Your task to perform on an android device: turn smart compose on in the gmail app Image 0: 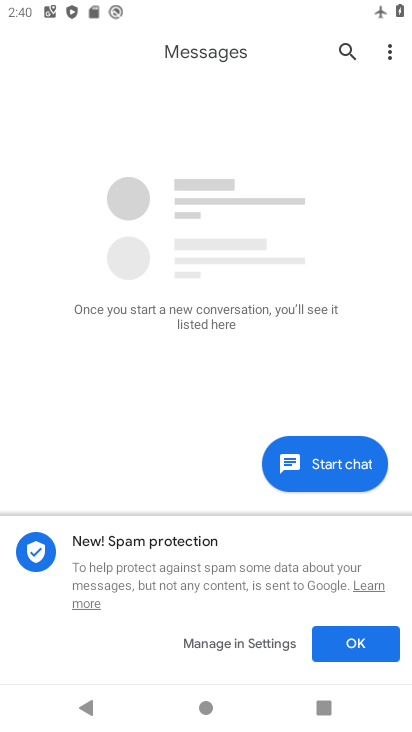
Step 0: press home button
Your task to perform on an android device: turn smart compose on in the gmail app Image 1: 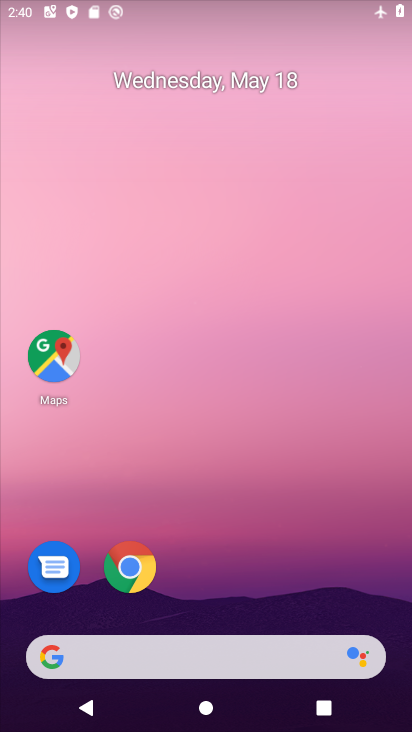
Step 1: drag from (251, 567) to (217, 202)
Your task to perform on an android device: turn smart compose on in the gmail app Image 2: 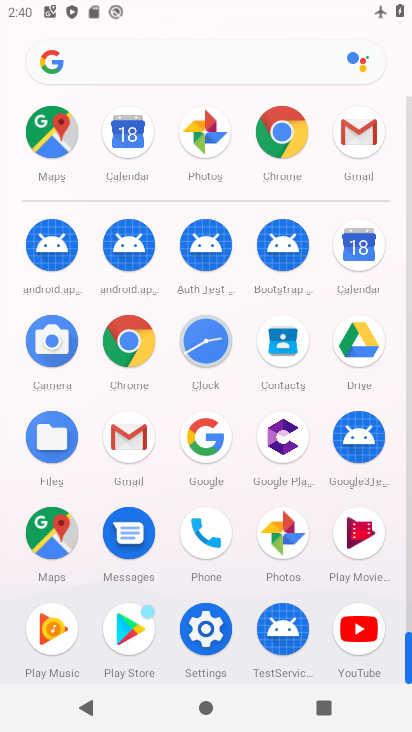
Step 2: click (350, 148)
Your task to perform on an android device: turn smart compose on in the gmail app Image 3: 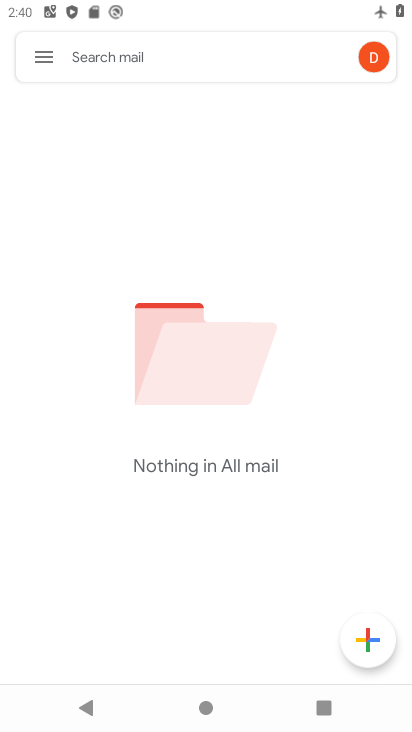
Step 3: click (35, 66)
Your task to perform on an android device: turn smart compose on in the gmail app Image 4: 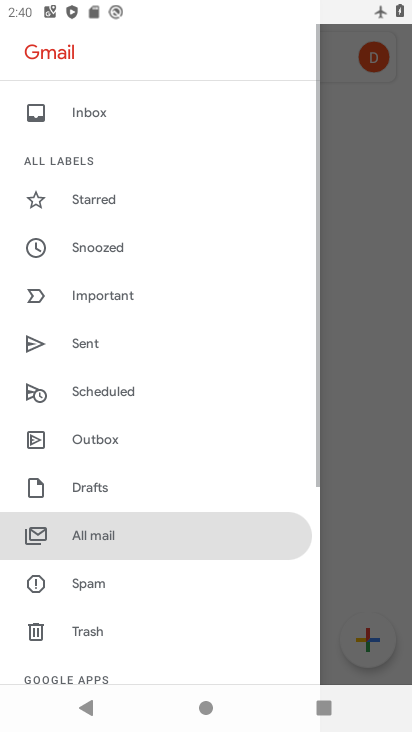
Step 4: drag from (153, 623) to (149, 207)
Your task to perform on an android device: turn smart compose on in the gmail app Image 5: 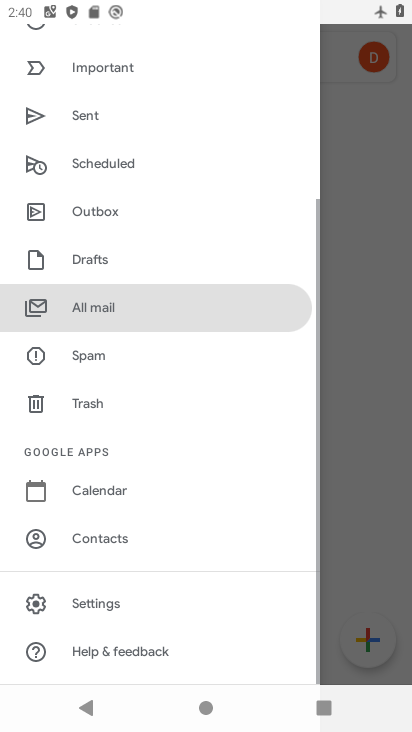
Step 5: click (129, 595)
Your task to perform on an android device: turn smart compose on in the gmail app Image 6: 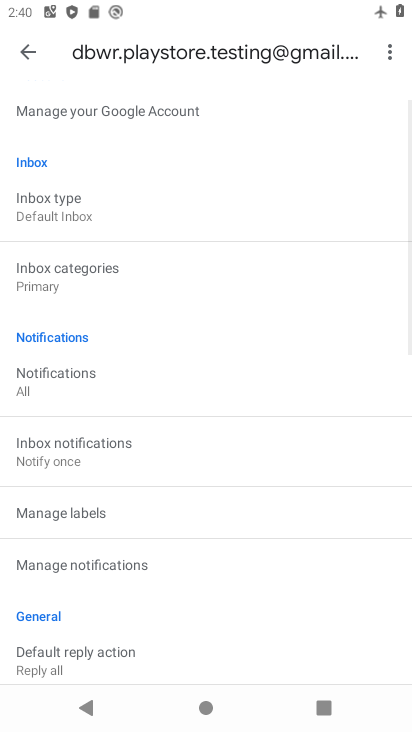
Step 6: drag from (182, 597) to (204, 302)
Your task to perform on an android device: turn smart compose on in the gmail app Image 7: 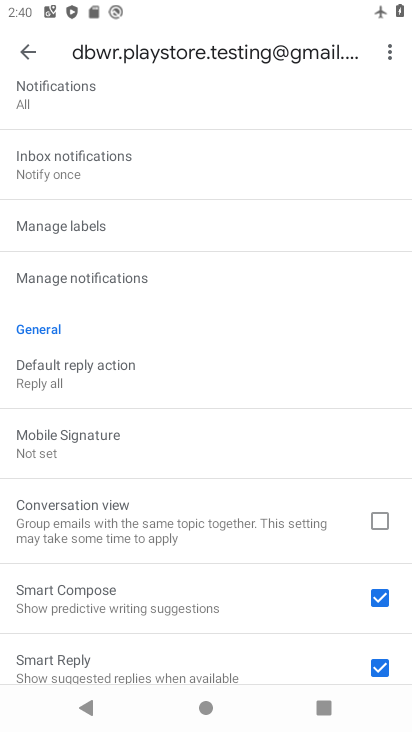
Step 7: drag from (185, 570) to (242, 372)
Your task to perform on an android device: turn smart compose on in the gmail app Image 8: 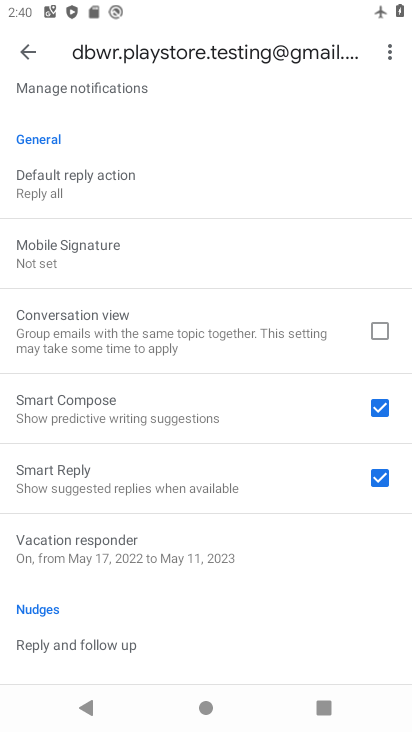
Step 8: click (168, 412)
Your task to perform on an android device: turn smart compose on in the gmail app Image 9: 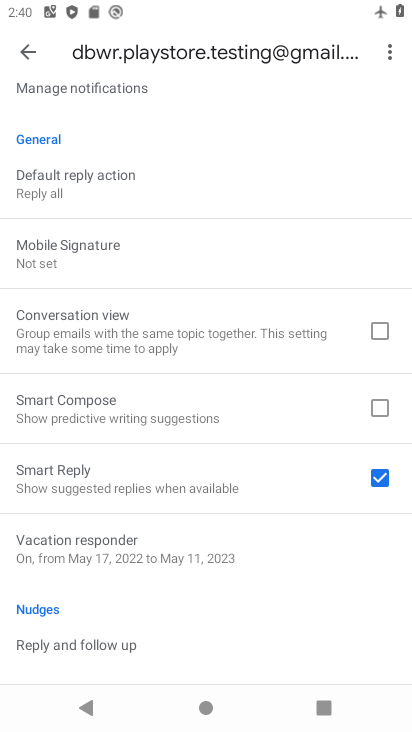
Step 9: click (361, 411)
Your task to perform on an android device: turn smart compose on in the gmail app Image 10: 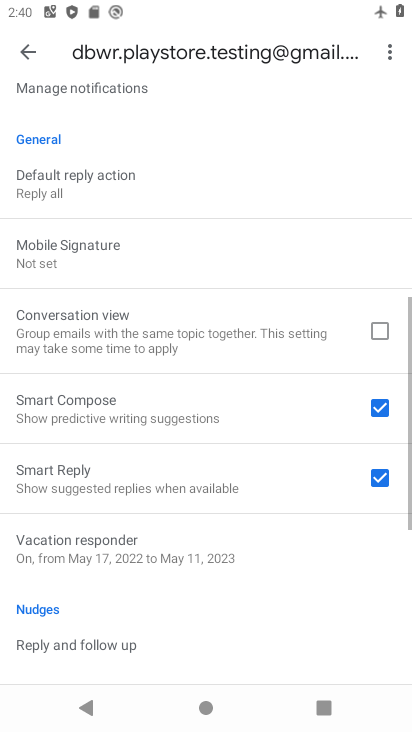
Step 10: task complete